Your task to perform on an android device: turn on sleep mode Image 0: 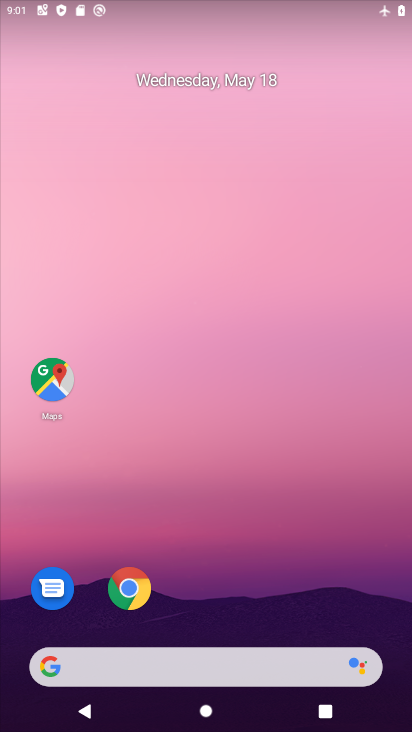
Step 0: drag from (261, 610) to (246, 0)
Your task to perform on an android device: turn on sleep mode Image 1: 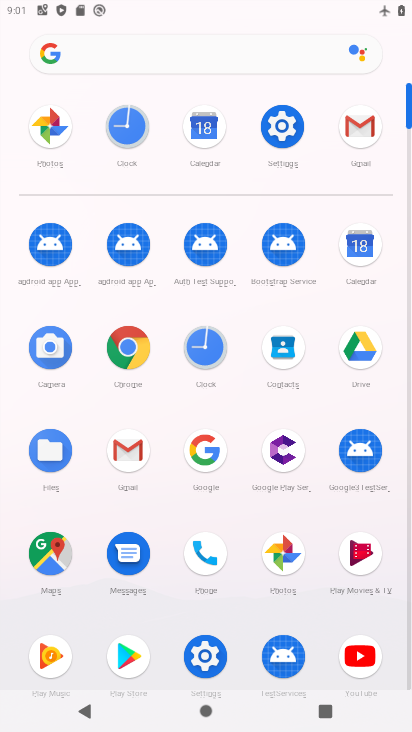
Step 1: click (287, 121)
Your task to perform on an android device: turn on sleep mode Image 2: 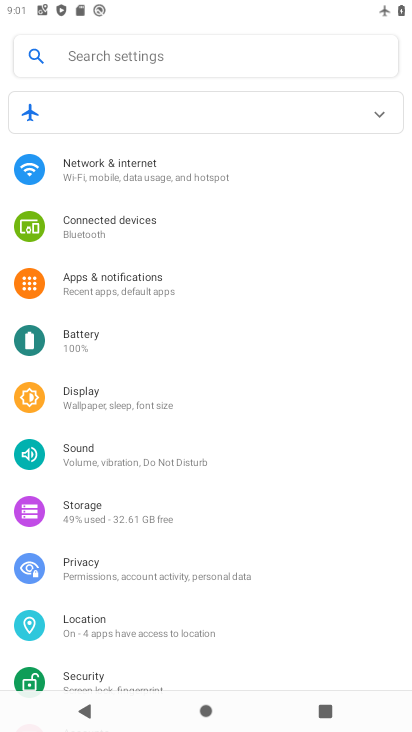
Step 2: click (81, 404)
Your task to perform on an android device: turn on sleep mode Image 3: 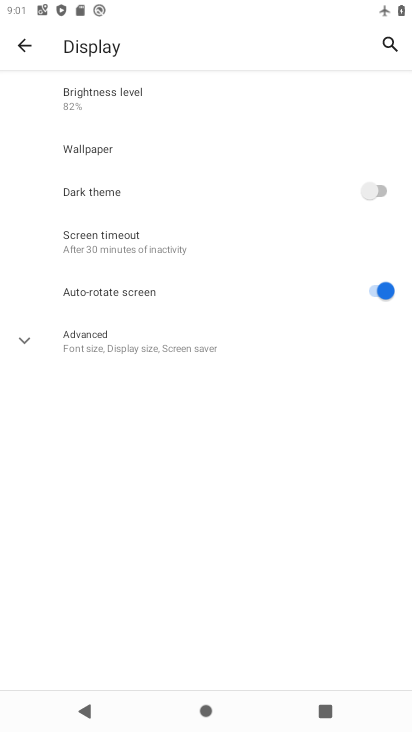
Step 3: click (18, 344)
Your task to perform on an android device: turn on sleep mode Image 4: 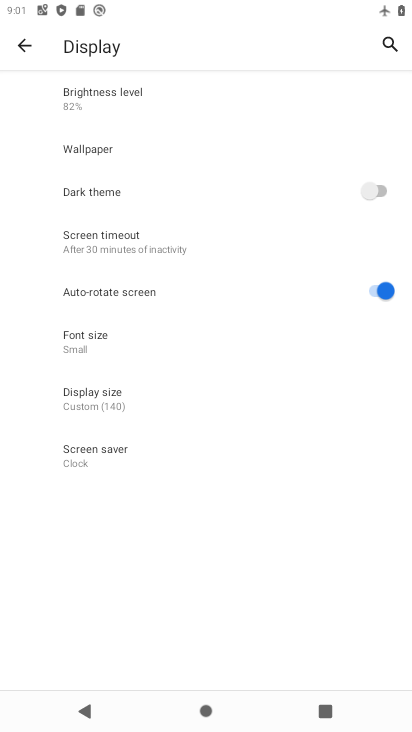
Step 4: task complete